Your task to perform on an android device: change the upload size in google photos Image 0: 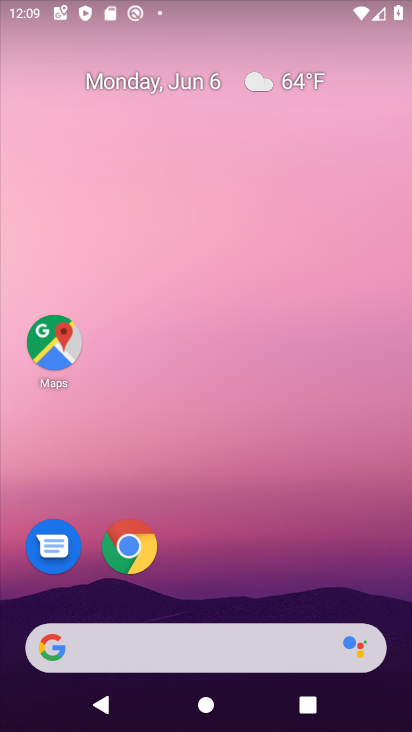
Step 0: click (228, 252)
Your task to perform on an android device: change the upload size in google photos Image 1: 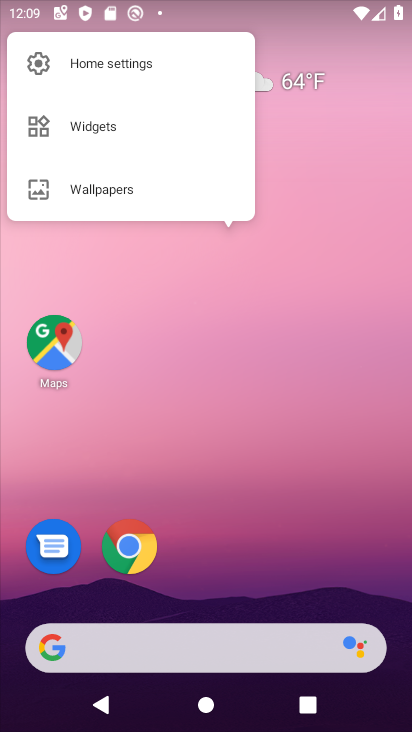
Step 1: click (206, 536)
Your task to perform on an android device: change the upload size in google photos Image 2: 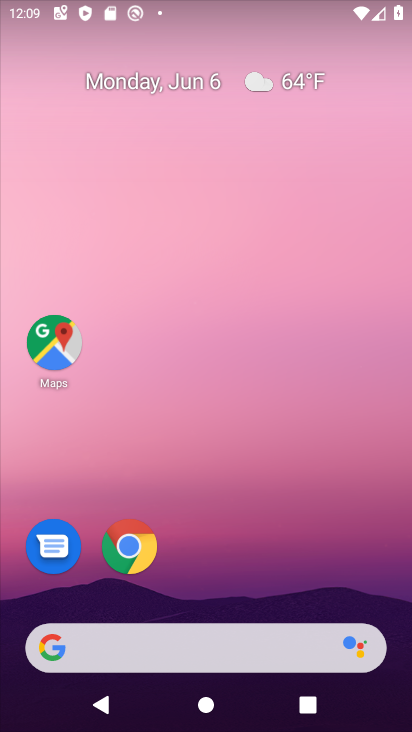
Step 2: drag from (168, 587) to (195, 264)
Your task to perform on an android device: change the upload size in google photos Image 3: 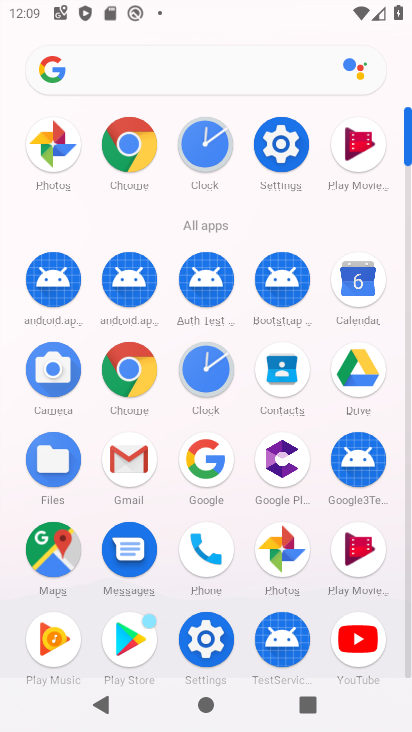
Step 3: click (276, 549)
Your task to perform on an android device: change the upload size in google photos Image 4: 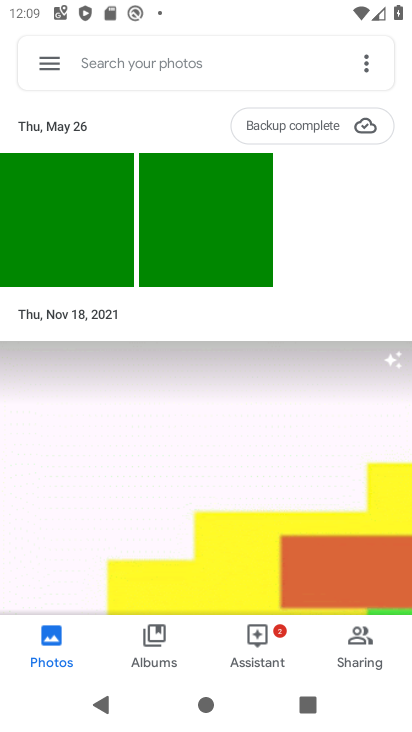
Step 4: click (43, 65)
Your task to perform on an android device: change the upload size in google photos Image 5: 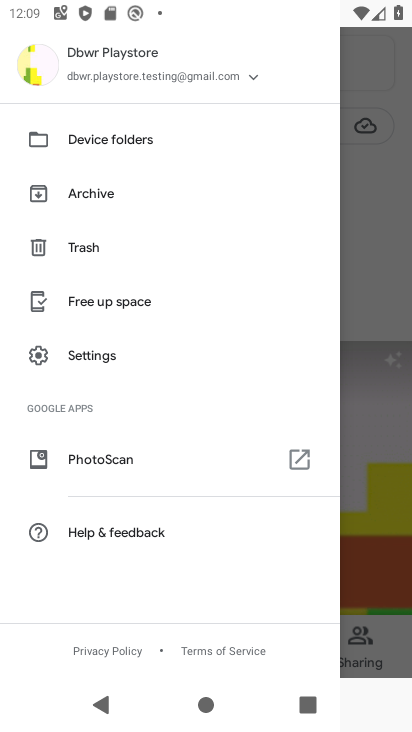
Step 5: click (96, 352)
Your task to perform on an android device: change the upload size in google photos Image 6: 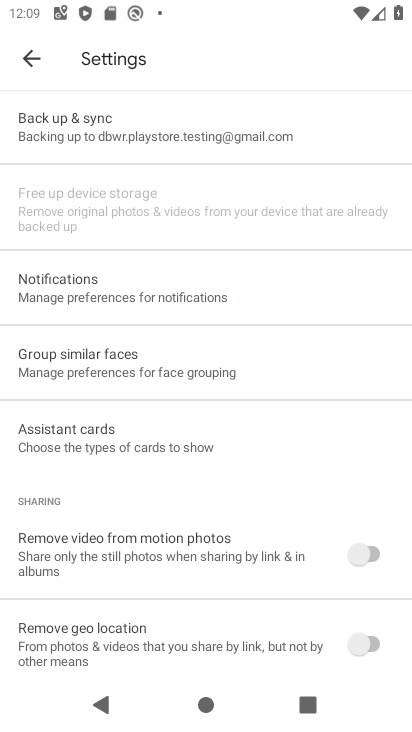
Step 6: click (102, 118)
Your task to perform on an android device: change the upload size in google photos Image 7: 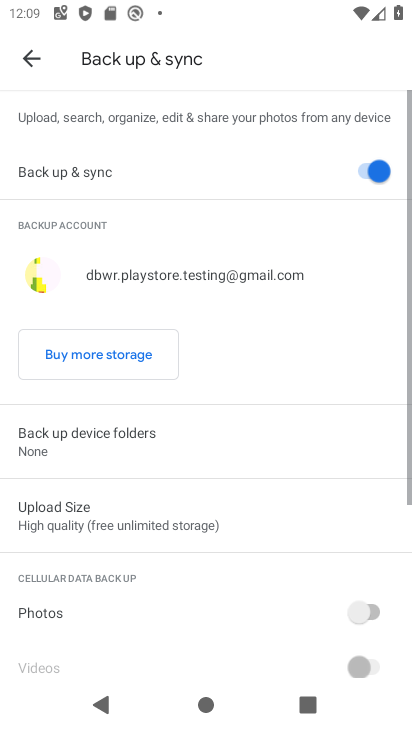
Step 7: click (123, 517)
Your task to perform on an android device: change the upload size in google photos Image 8: 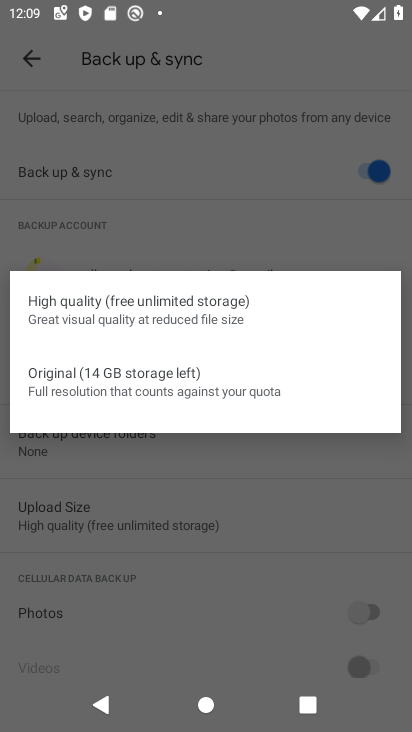
Step 8: click (66, 383)
Your task to perform on an android device: change the upload size in google photos Image 9: 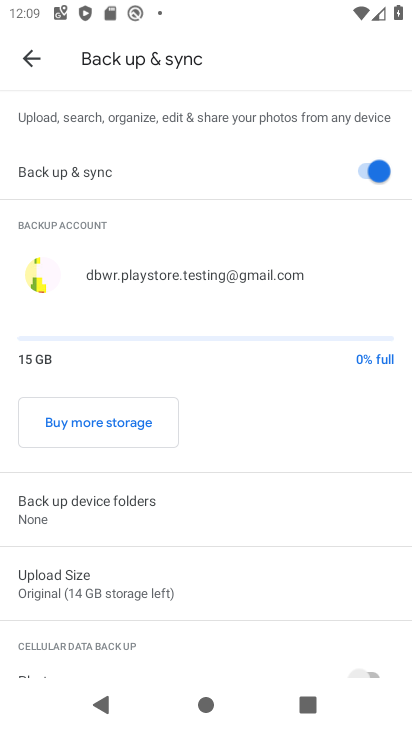
Step 9: task complete